Your task to perform on an android device: refresh tabs in the chrome app Image 0: 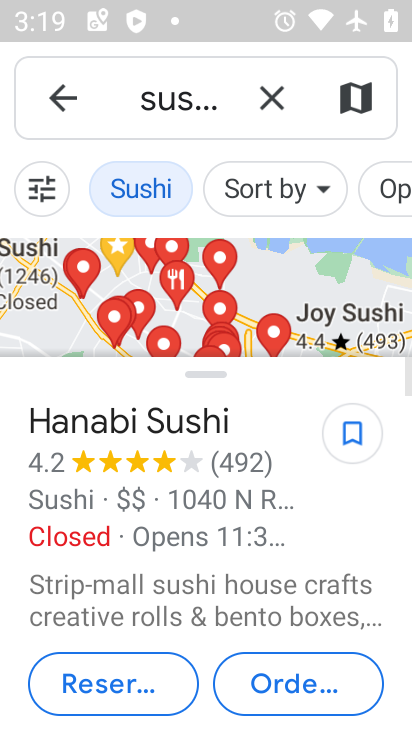
Step 0: press home button
Your task to perform on an android device: refresh tabs in the chrome app Image 1: 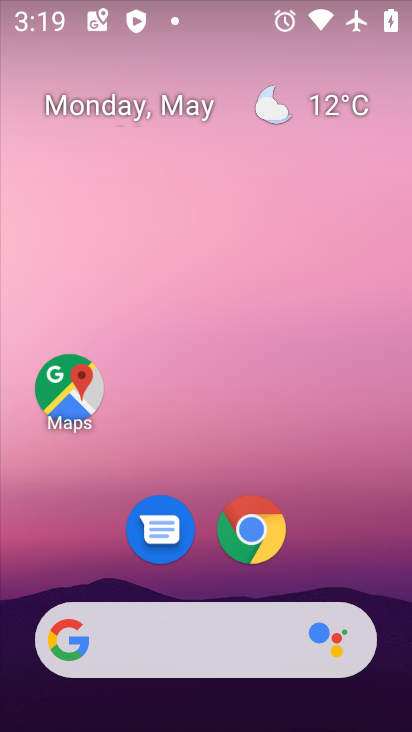
Step 1: click (256, 523)
Your task to perform on an android device: refresh tabs in the chrome app Image 2: 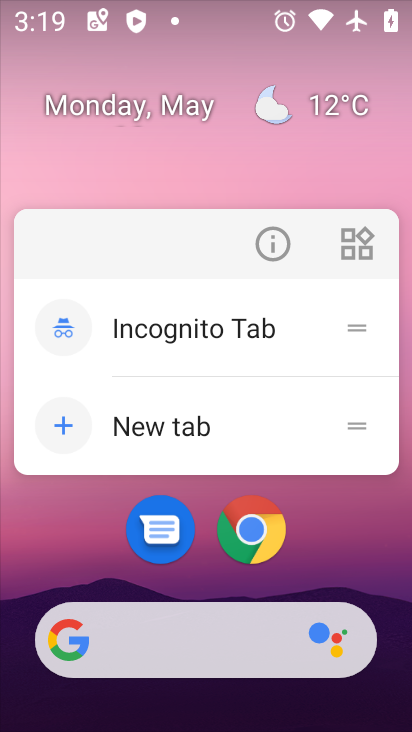
Step 2: click (257, 535)
Your task to perform on an android device: refresh tabs in the chrome app Image 3: 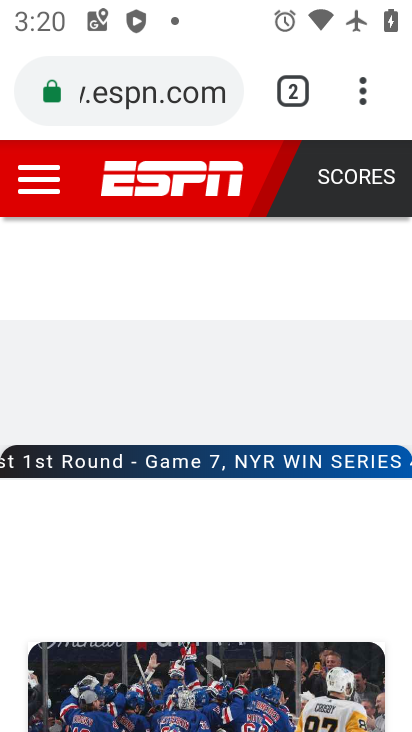
Step 3: click (363, 96)
Your task to perform on an android device: refresh tabs in the chrome app Image 4: 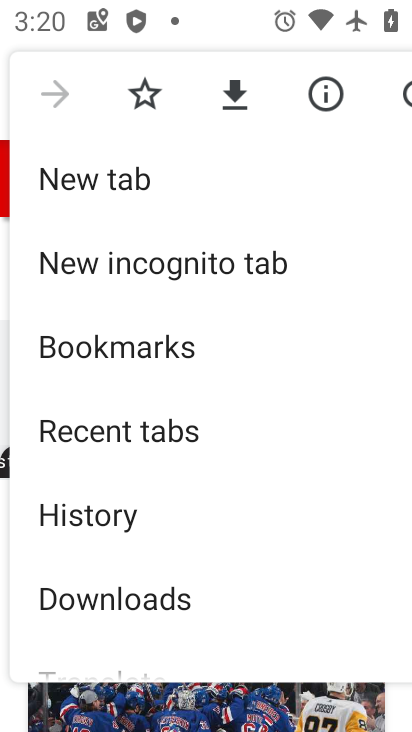
Step 4: click (406, 93)
Your task to perform on an android device: refresh tabs in the chrome app Image 5: 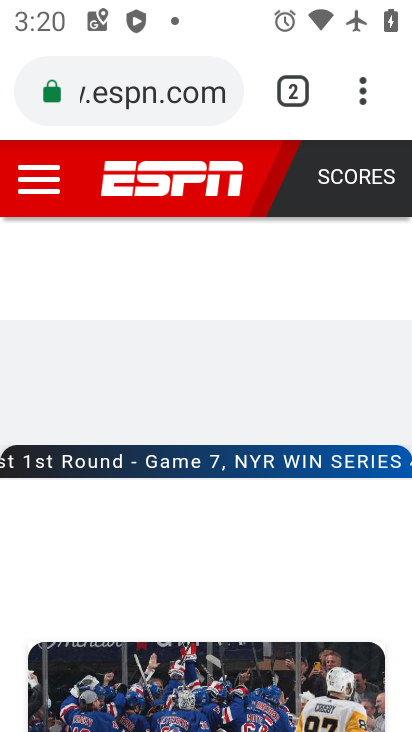
Step 5: click (311, 89)
Your task to perform on an android device: refresh tabs in the chrome app Image 6: 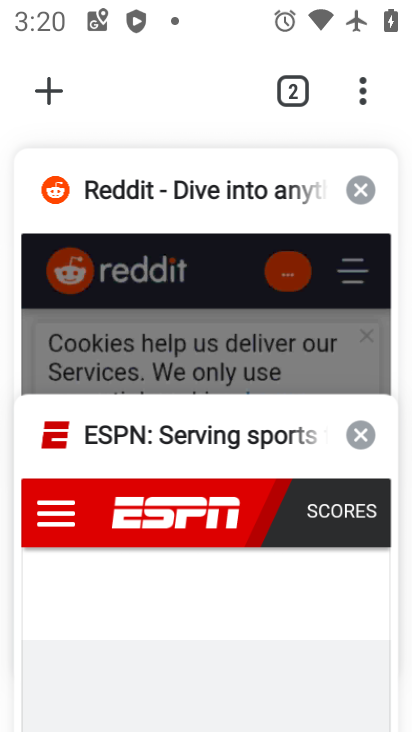
Step 6: click (198, 307)
Your task to perform on an android device: refresh tabs in the chrome app Image 7: 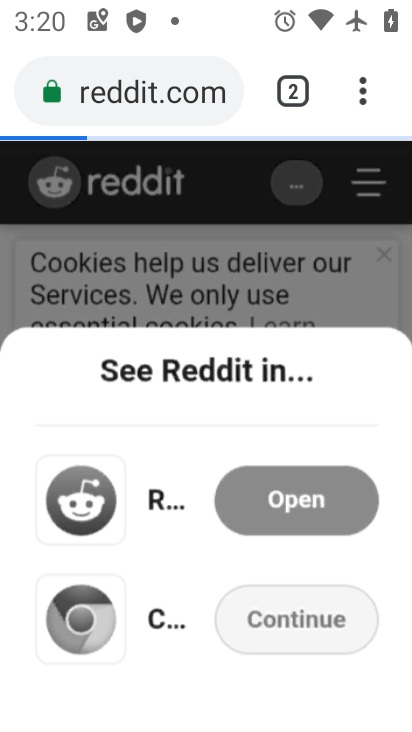
Step 7: click (367, 91)
Your task to perform on an android device: refresh tabs in the chrome app Image 8: 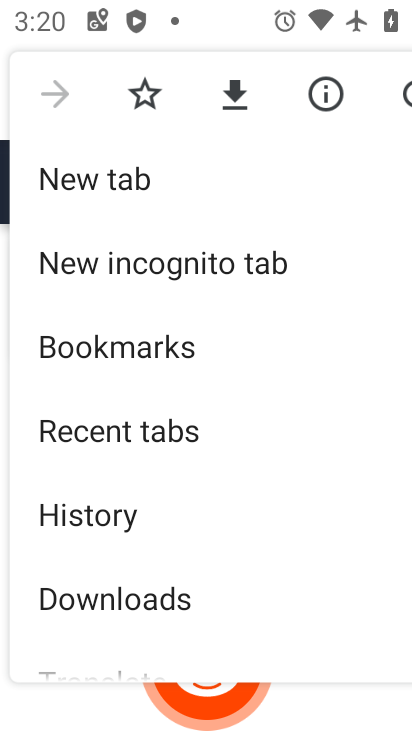
Step 8: click (396, 104)
Your task to perform on an android device: refresh tabs in the chrome app Image 9: 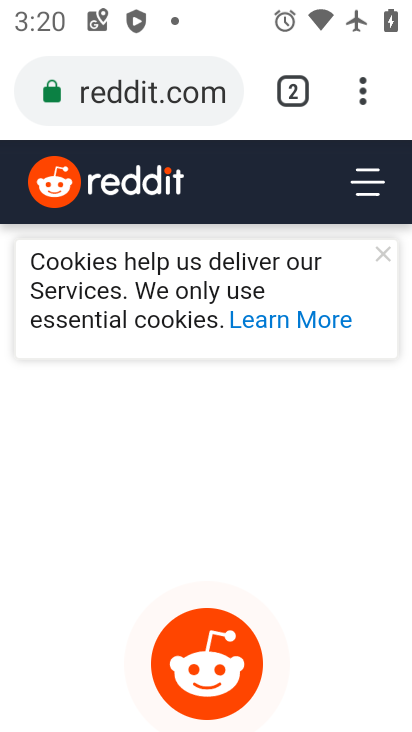
Step 9: task complete